Your task to perform on an android device: Open calendar and show me the first week of next month Image 0: 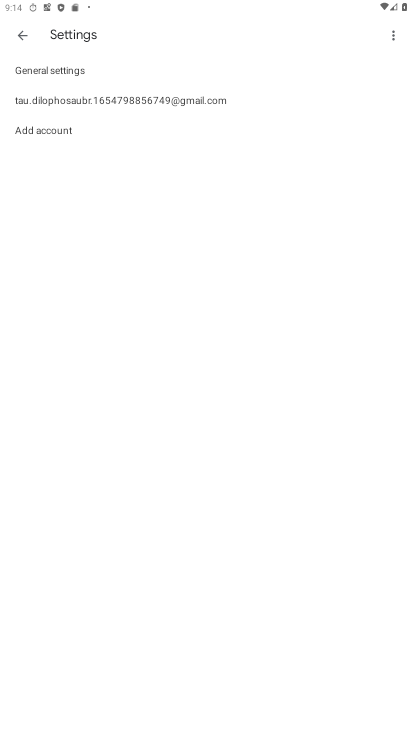
Step 0: press home button
Your task to perform on an android device: Open calendar and show me the first week of next month Image 1: 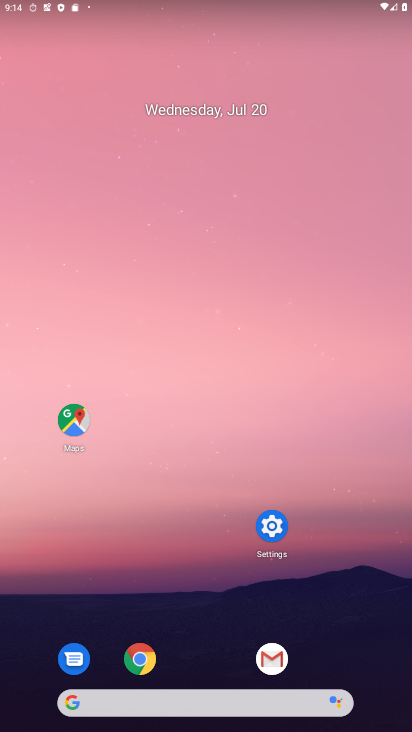
Step 1: drag from (278, 692) to (264, 187)
Your task to perform on an android device: Open calendar and show me the first week of next month Image 2: 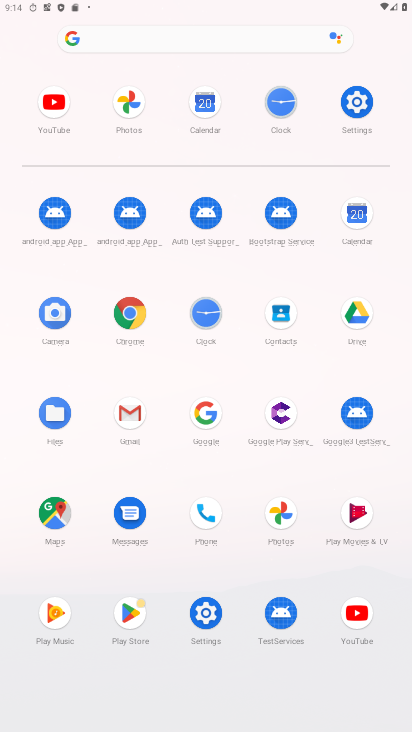
Step 2: click (357, 214)
Your task to perform on an android device: Open calendar and show me the first week of next month Image 3: 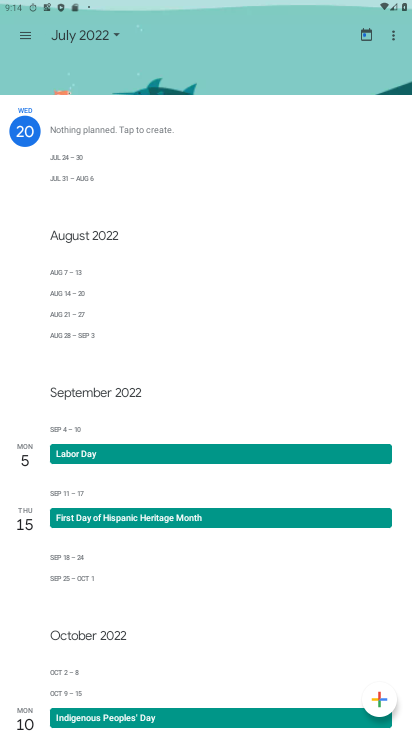
Step 3: click (22, 43)
Your task to perform on an android device: Open calendar and show me the first week of next month Image 4: 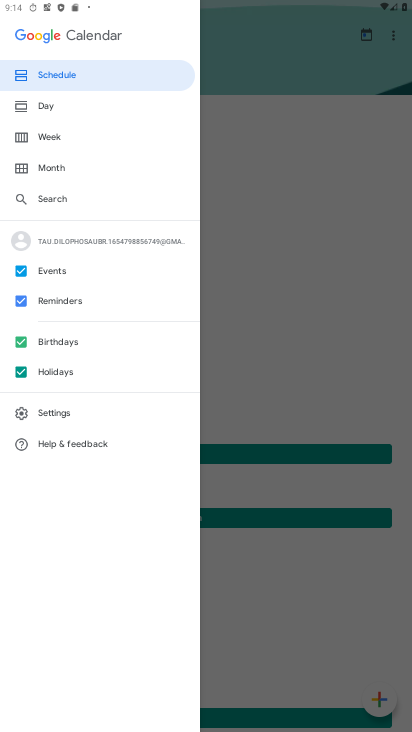
Step 4: click (59, 162)
Your task to perform on an android device: Open calendar and show me the first week of next month Image 5: 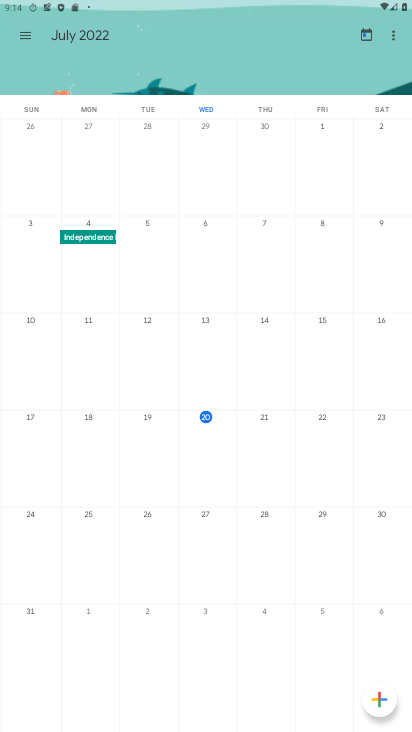
Step 5: drag from (387, 359) to (0, 429)
Your task to perform on an android device: Open calendar and show me the first week of next month Image 6: 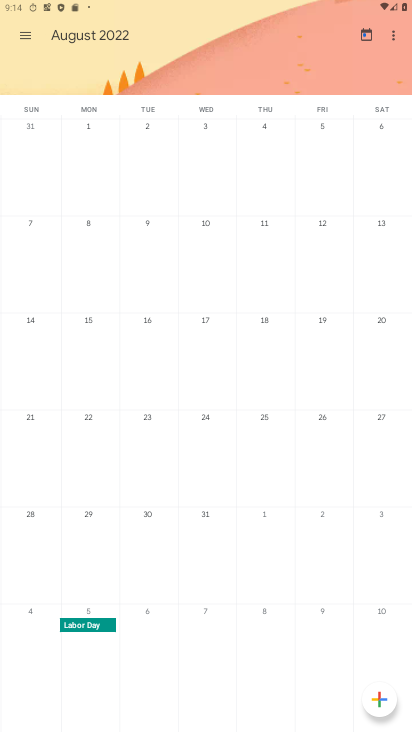
Step 6: click (77, 147)
Your task to perform on an android device: Open calendar and show me the first week of next month Image 7: 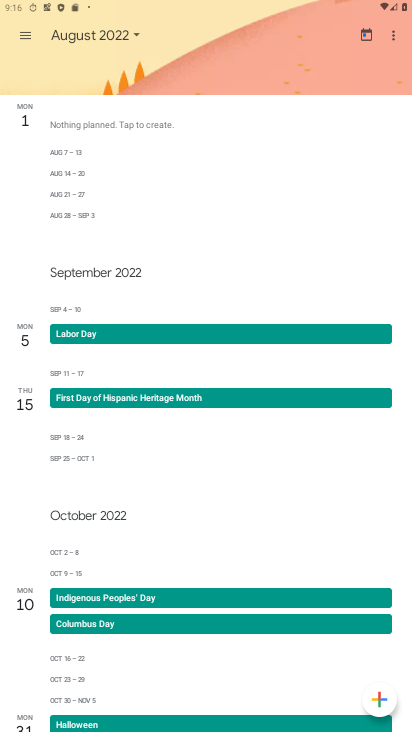
Step 7: task complete